Your task to perform on an android device: turn on showing notifications on the lock screen Image 0: 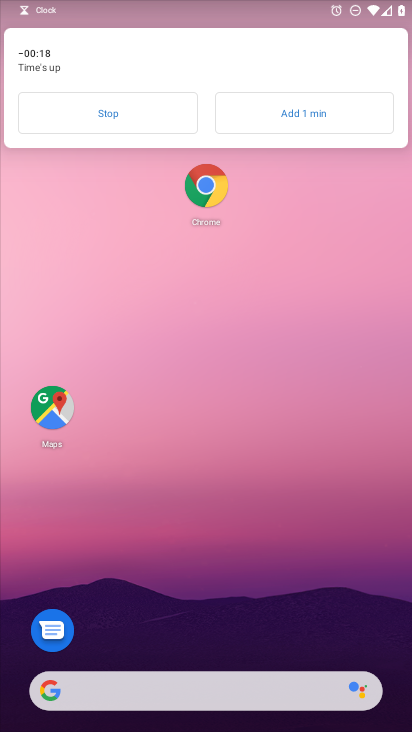
Step 0: click (133, 123)
Your task to perform on an android device: turn on showing notifications on the lock screen Image 1: 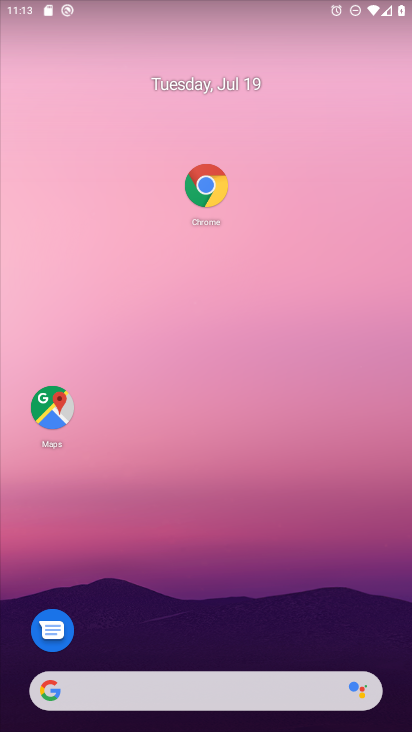
Step 1: drag from (278, 661) to (327, 243)
Your task to perform on an android device: turn on showing notifications on the lock screen Image 2: 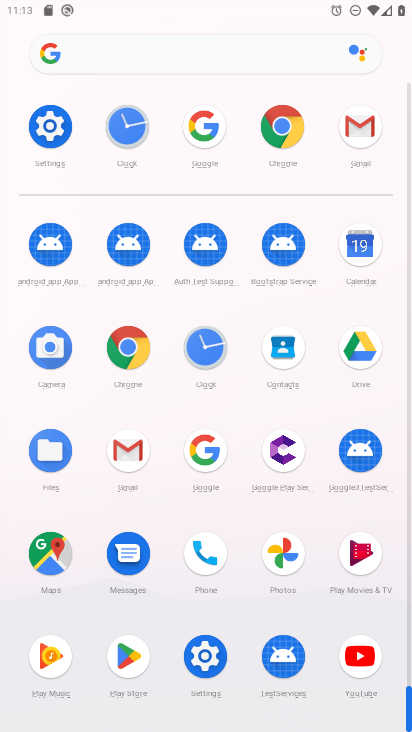
Step 2: click (67, 134)
Your task to perform on an android device: turn on showing notifications on the lock screen Image 3: 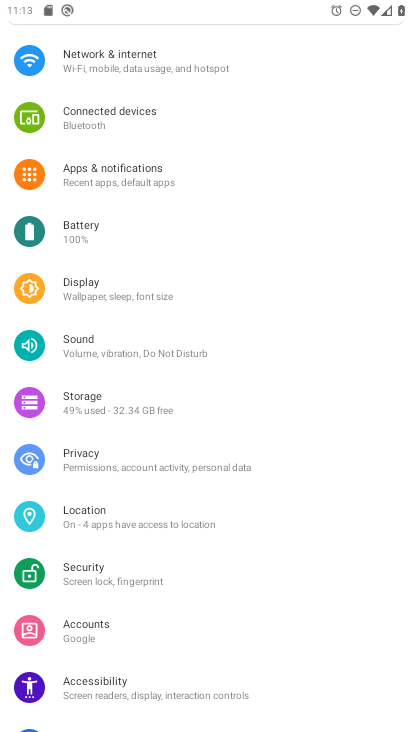
Step 3: click (124, 184)
Your task to perform on an android device: turn on showing notifications on the lock screen Image 4: 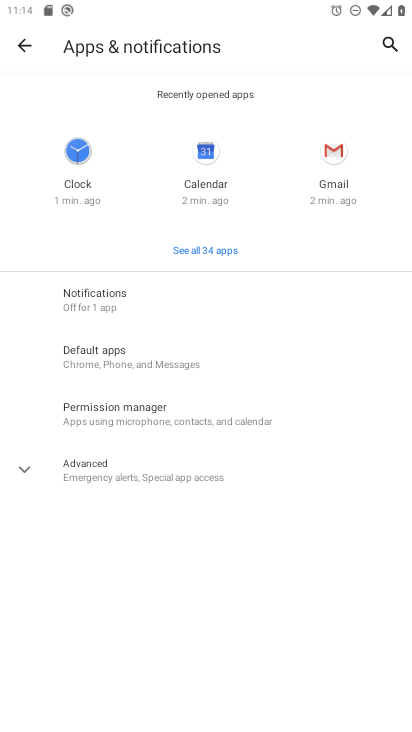
Step 4: click (172, 298)
Your task to perform on an android device: turn on showing notifications on the lock screen Image 5: 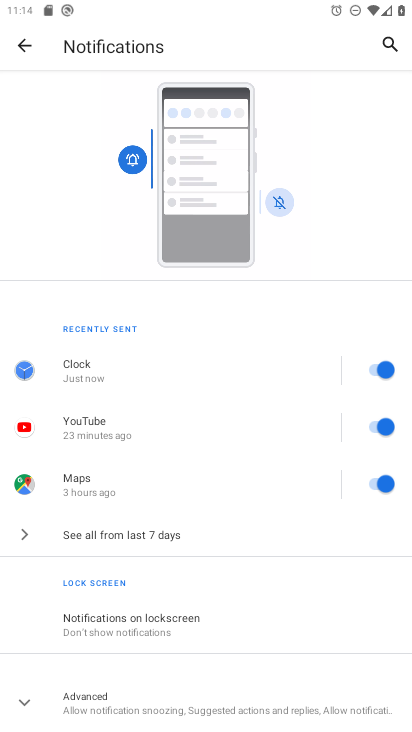
Step 5: drag from (179, 563) to (215, 373)
Your task to perform on an android device: turn on showing notifications on the lock screen Image 6: 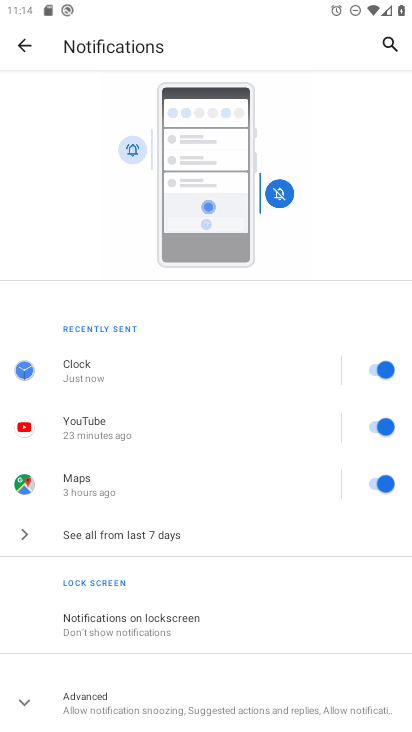
Step 6: drag from (150, 616) to (211, 358)
Your task to perform on an android device: turn on showing notifications on the lock screen Image 7: 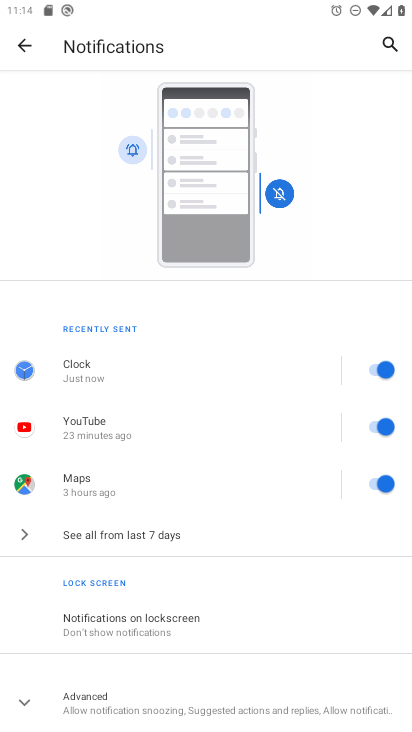
Step 7: drag from (147, 651) to (200, 341)
Your task to perform on an android device: turn on showing notifications on the lock screen Image 8: 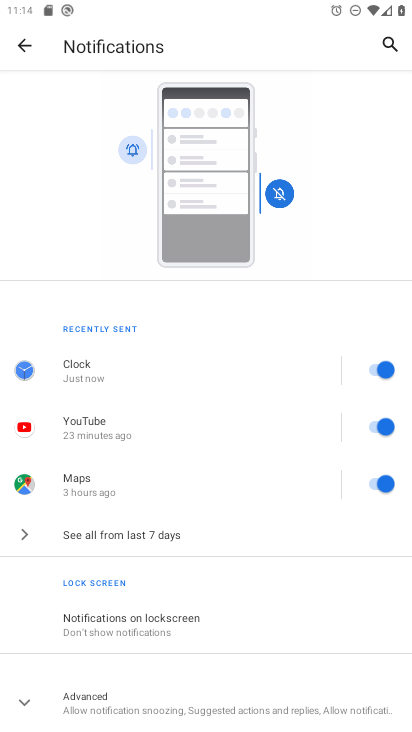
Step 8: click (143, 612)
Your task to perform on an android device: turn on showing notifications on the lock screen Image 9: 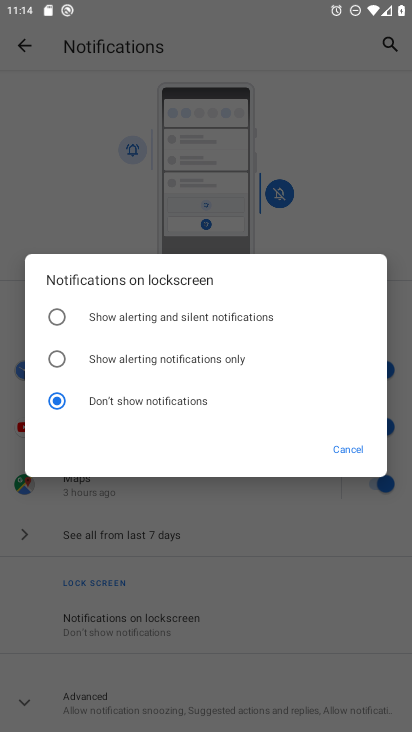
Step 9: click (105, 308)
Your task to perform on an android device: turn on showing notifications on the lock screen Image 10: 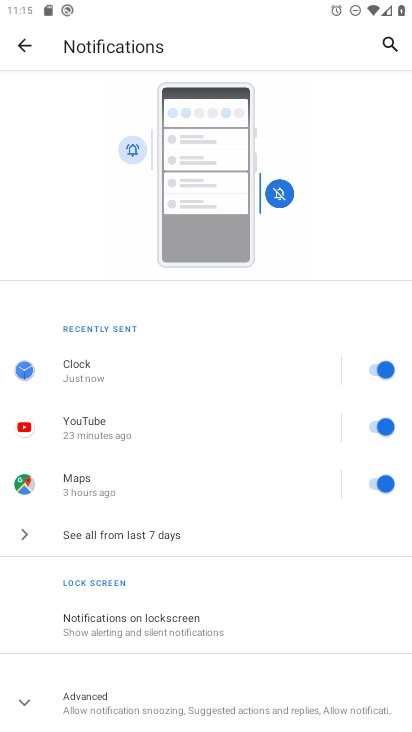
Step 10: click (87, 624)
Your task to perform on an android device: turn on showing notifications on the lock screen Image 11: 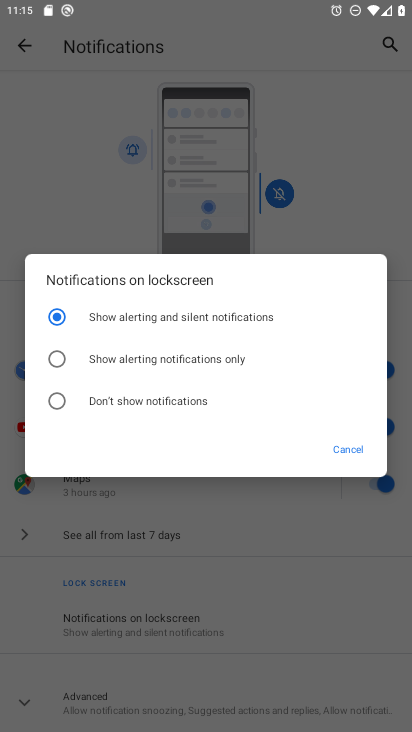
Step 11: task complete